Your task to perform on an android device: turn off notifications in google photos Image 0: 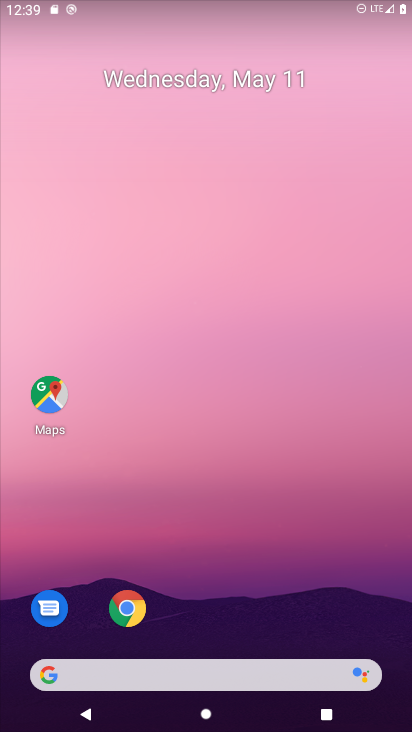
Step 0: drag from (270, 558) to (328, 92)
Your task to perform on an android device: turn off notifications in google photos Image 1: 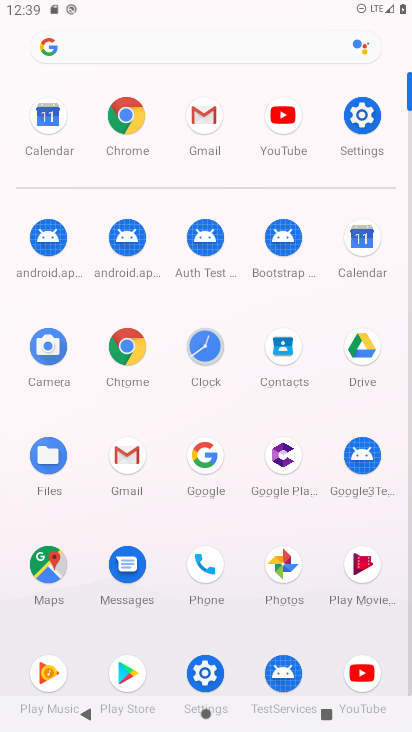
Step 1: click (361, 115)
Your task to perform on an android device: turn off notifications in google photos Image 2: 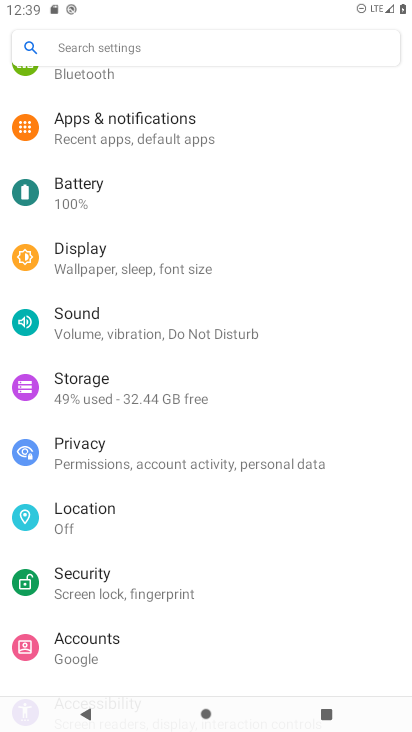
Step 2: click (166, 129)
Your task to perform on an android device: turn off notifications in google photos Image 3: 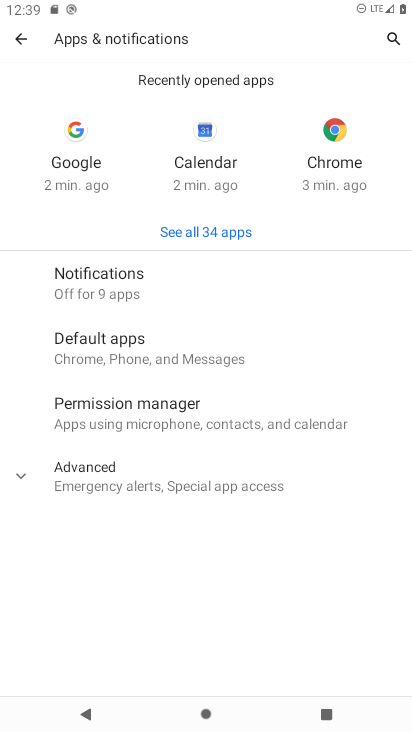
Step 3: click (226, 229)
Your task to perform on an android device: turn off notifications in google photos Image 4: 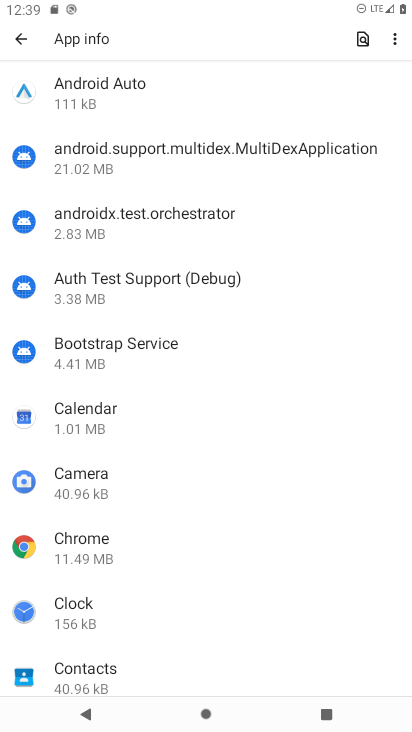
Step 4: drag from (187, 685) to (289, 2)
Your task to perform on an android device: turn off notifications in google photos Image 5: 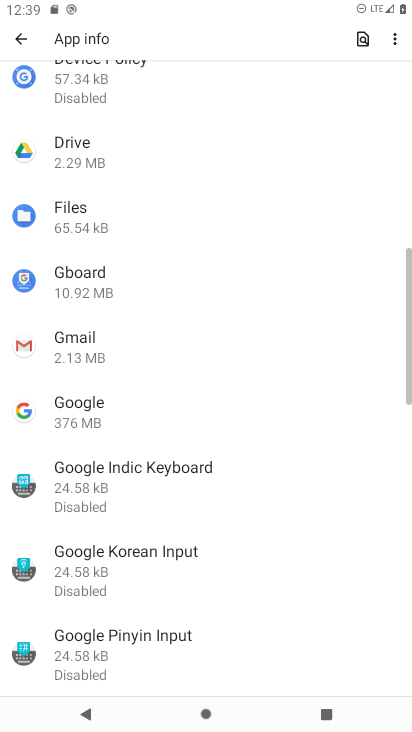
Step 5: drag from (260, 622) to (303, 77)
Your task to perform on an android device: turn off notifications in google photos Image 6: 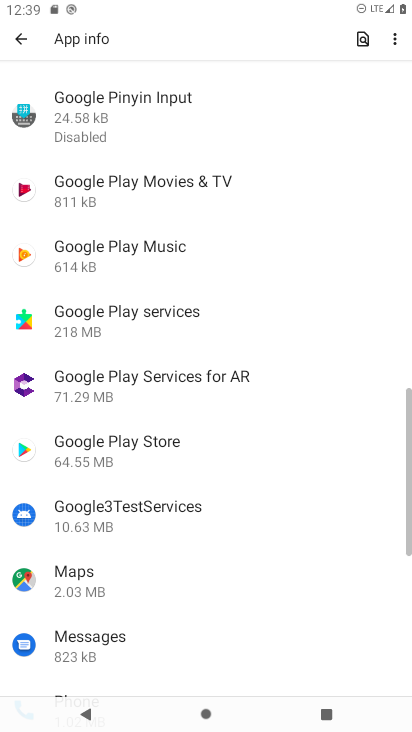
Step 6: drag from (214, 566) to (233, 103)
Your task to perform on an android device: turn off notifications in google photos Image 7: 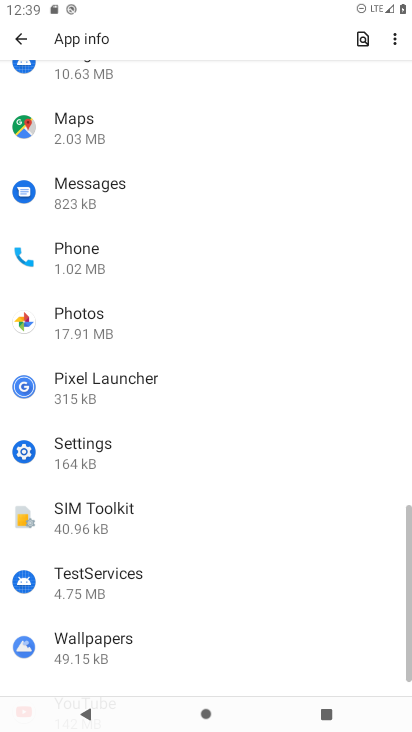
Step 7: click (70, 305)
Your task to perform on an android device: turn off notifications in google photos Image 8: 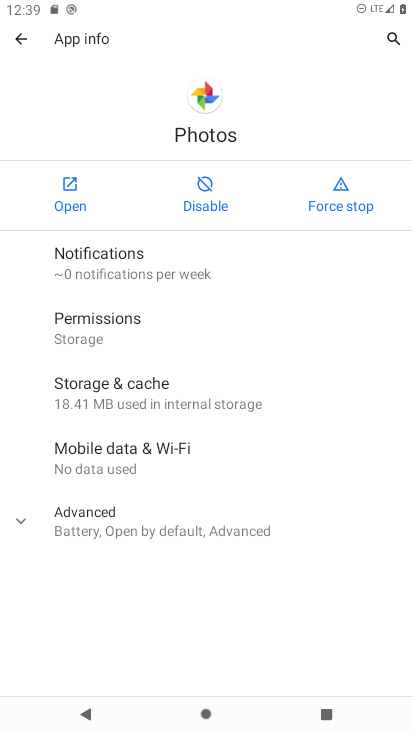
Step 8: click (195, 252)
Your task to perform on an android device: turn off notifications in google photos Image 9: 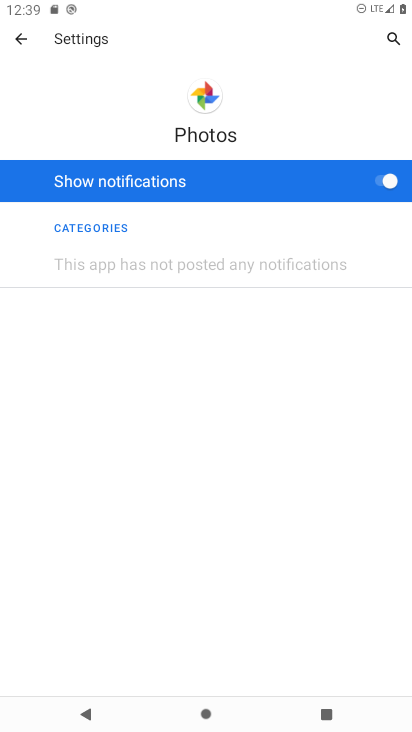
Step 9: click (377, 181)
Your task to perform on an android device: turn off notifications in google photos Image 10: 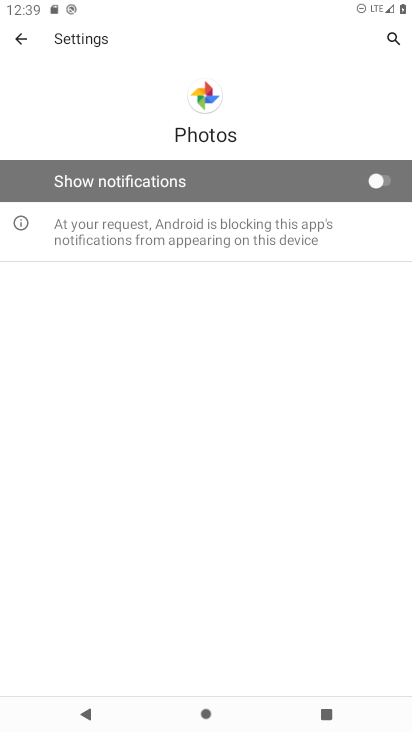
Step 10: task complete